Your task to perform on an android device: change alarm snooze length Image 0: 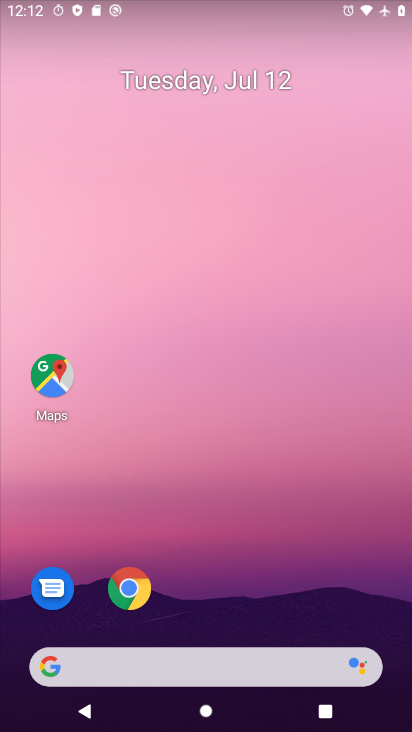
Step 0: drag from (204, 666) to (225, 132)
Your task to perform on an android device: change alarm snooze length Image 1: 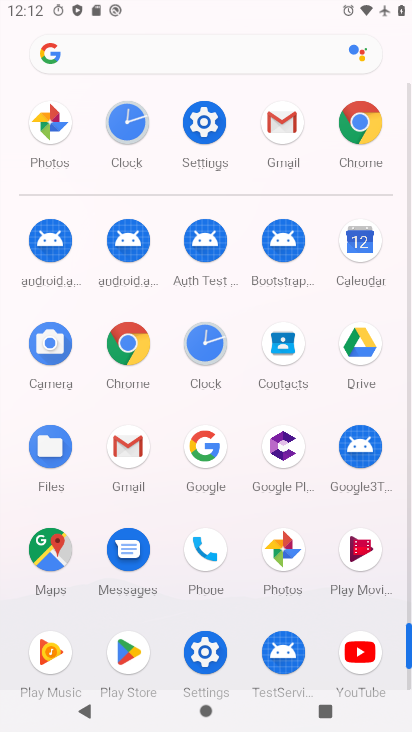
Step 1: click (125, 129)
Your task to perform on an android device: change alarm snooze length Image 2: 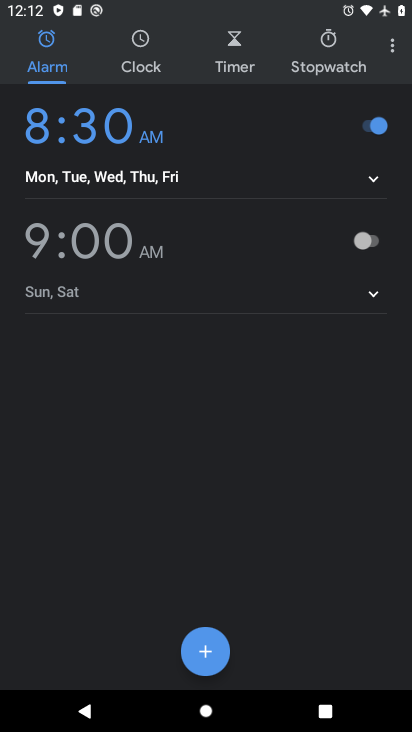
Step 2: click (396, 43)
Your task to perform on an android device: change alarm snooze length Image 3: 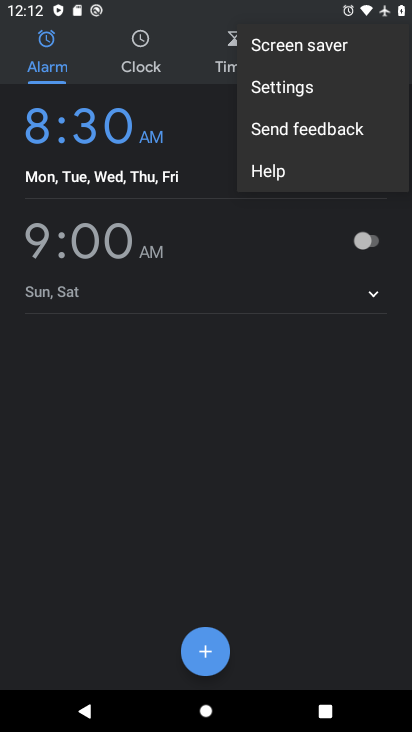
Step 3: click (288, 81)
Your task to perform on an android device: change alarm snooze length Image 4: 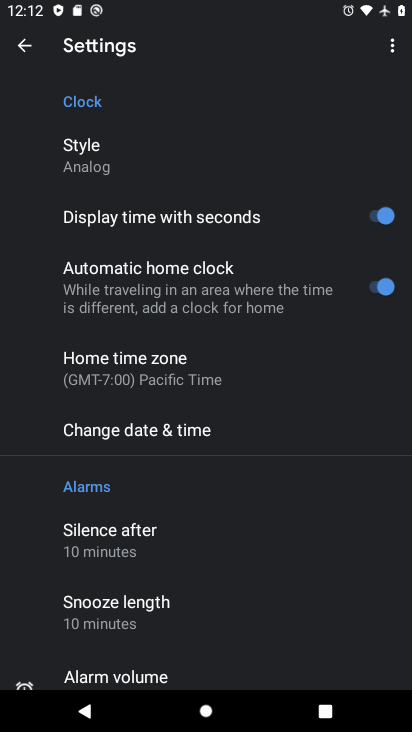
Step 4: click (142, 602)
Your task to perform on an android device: change alarm snooze length Image 5: 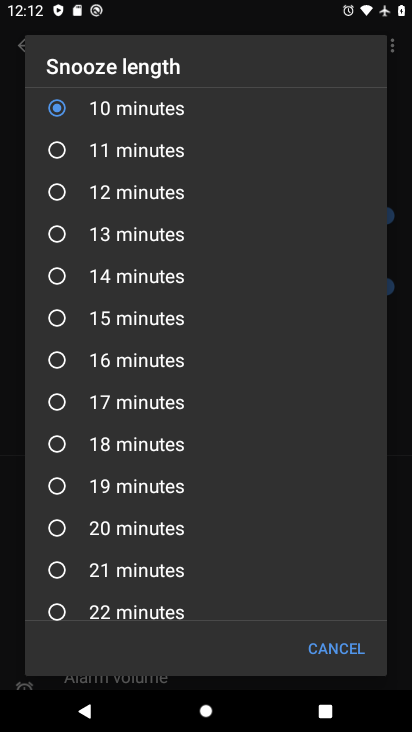
Step 5: click (59, 319)
Your task to perform on an android device: change alarm snooze length Image 6: 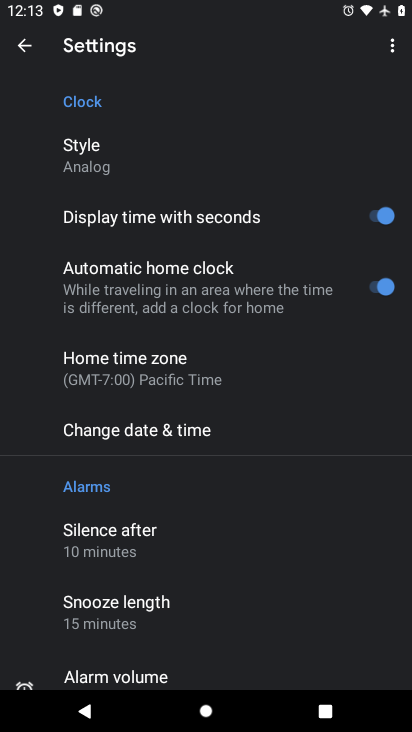
Step 6: task complete